Your task to perform on an android device: turn on sleep mode Image 0: 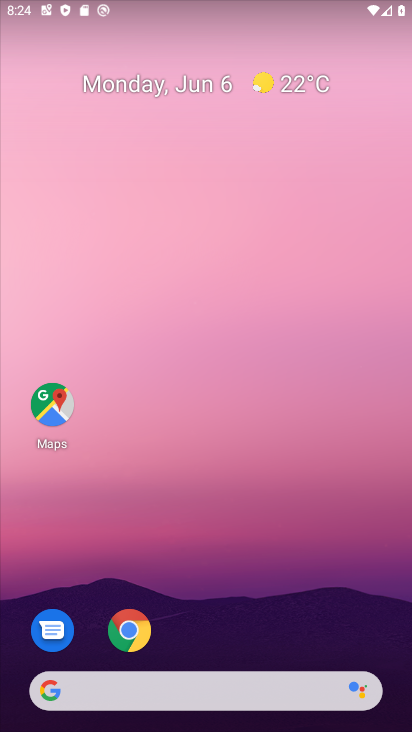
Step 0: press home button
Your task to perform on an android device: turn on sleep mode Image 1: 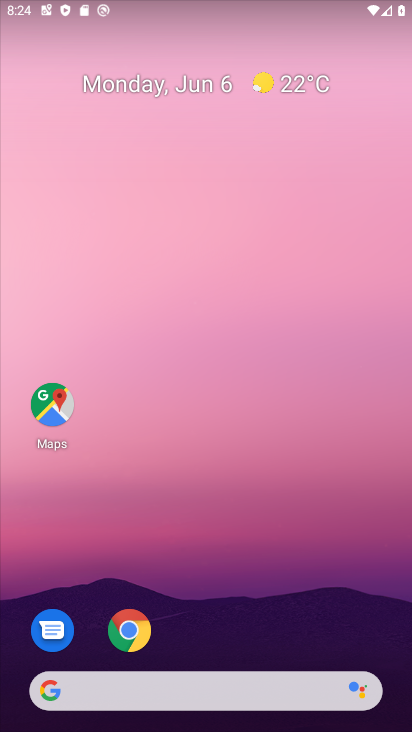
Step 1: task complete